Your task to perform on an android device: refresh tabs in the chrome app Image 0: 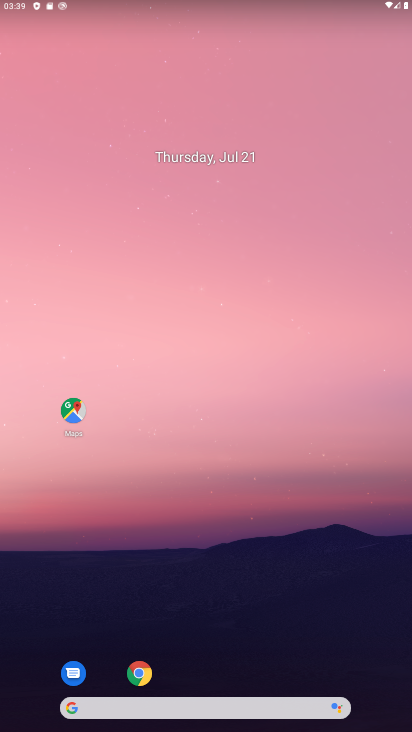
Step 0: drag from (282, 511) to (260, 59)
Your task to perform on an android device: refresh tabs in the chrome app Image 1: 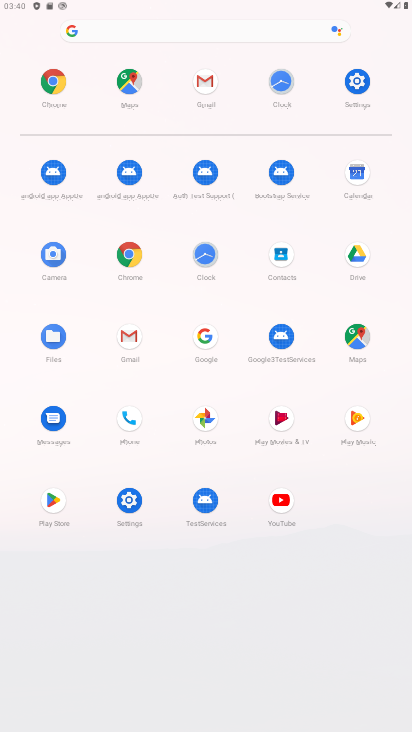
Step 1: click (54, 81)
Your task to perform on an android device: refresh tabs in the chrome app Image 2: 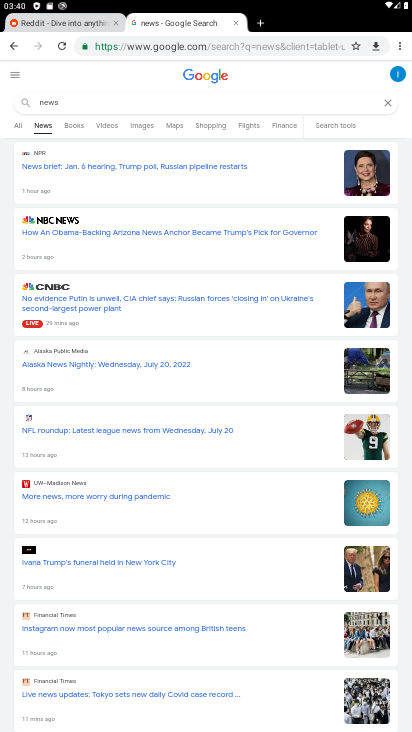
Step 2: drag from (402, 41) to (59, 39)
Your task to perform on an android device: refresh tabs in the chrome app Image 3: 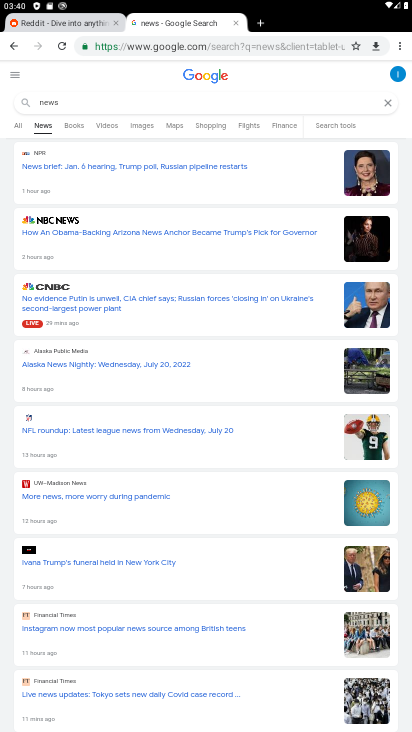
Step 3: click (59, 39)
Your task to perform on an android device: refresh tabs in the chrome app Image 4: 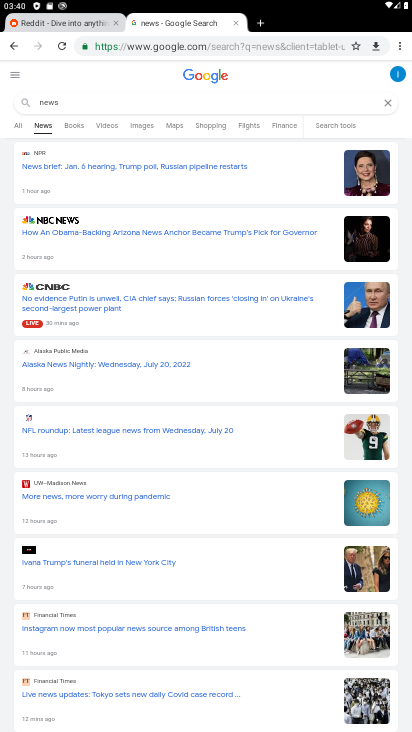
Step 4: task complete